Your task to perform on an android device: Look up the best rated drill on Lowes. Image 0: 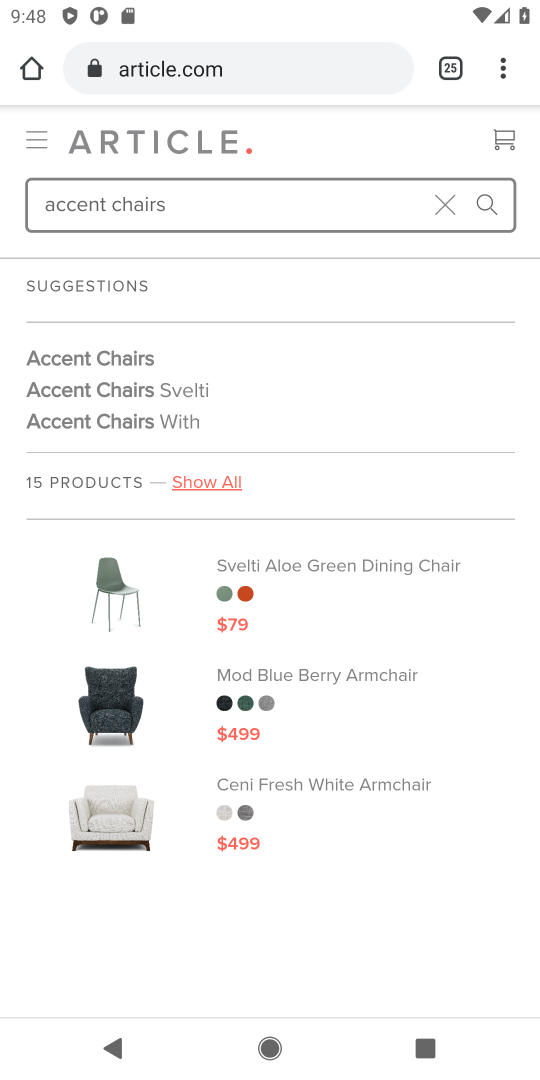
Step 0: press home button
Your task to perform on an android device: Look up the best rated drill on Lowes. Image 1: 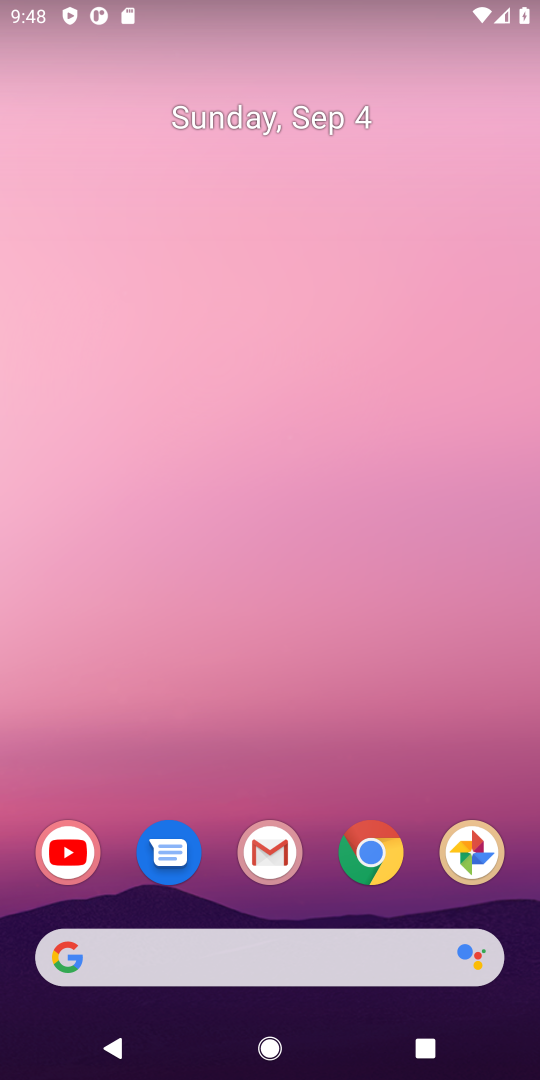
Step 1: drag from (427, 799) to (262, 106)
Your task to perform on an android device: Look up the best rated drill on Lowes. Image 2: 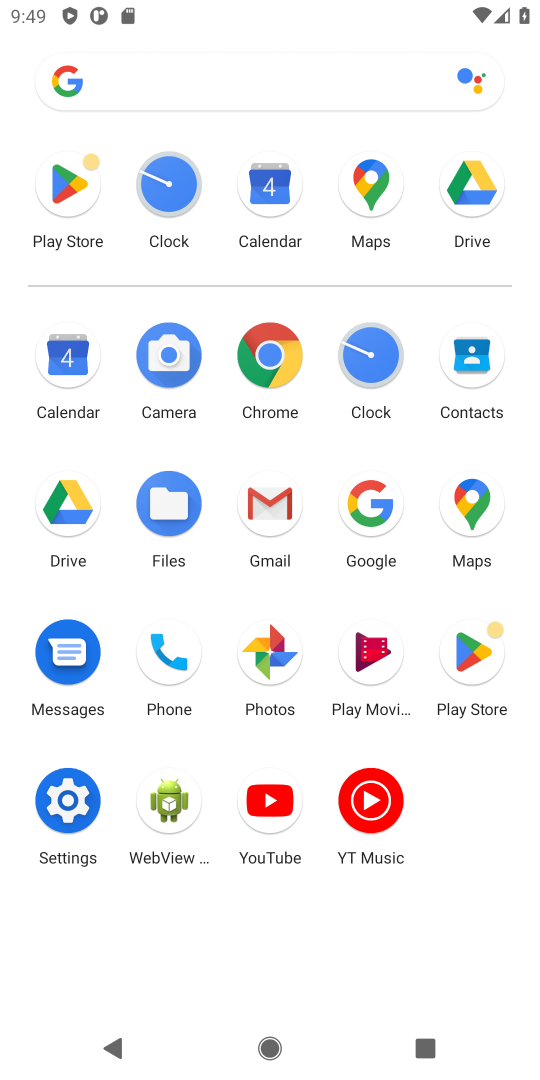
Step 2: click (375, 485)
Your task to perform on an android device: Look up the best rated drill on Lowes. Image 3: 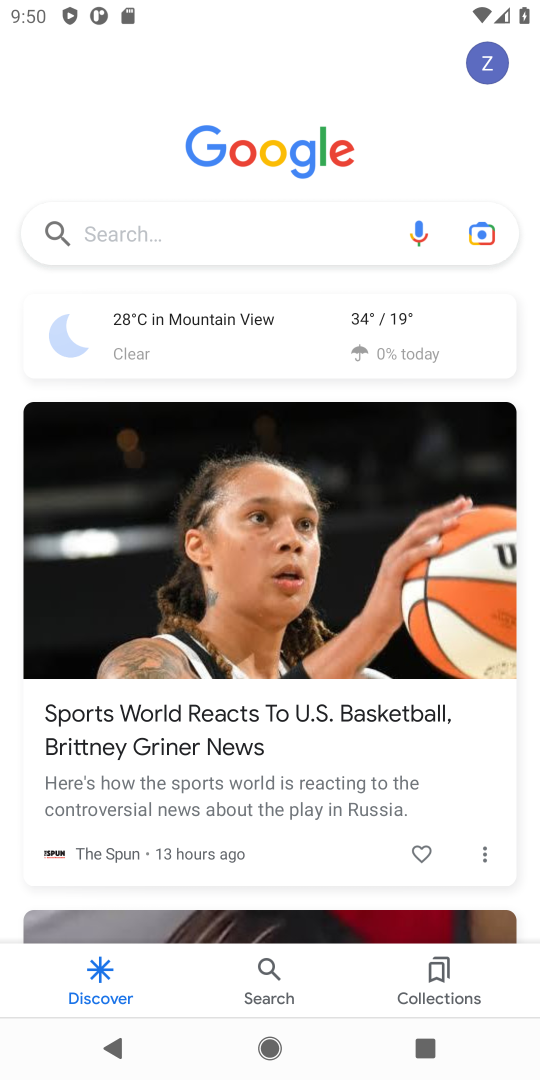
Step 3: click (137, 244)
Your task to perform on an android device: Look up the best rated drill on Lowes. Image 4: 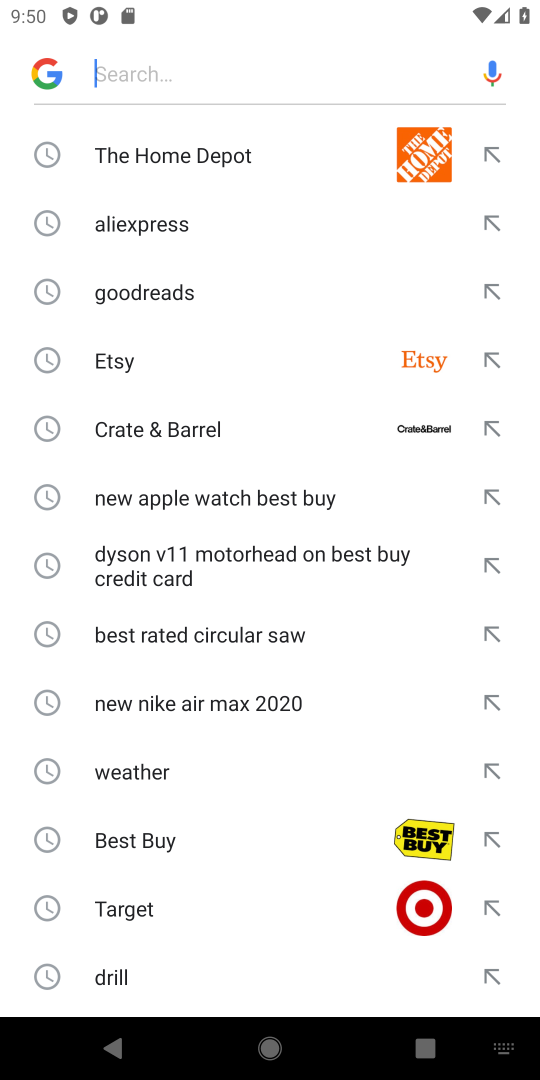
Step 4: type "best rated drill on Lowes"
Your task to perform on an android device: Look up the best rated drill on Lowes. Image 5: 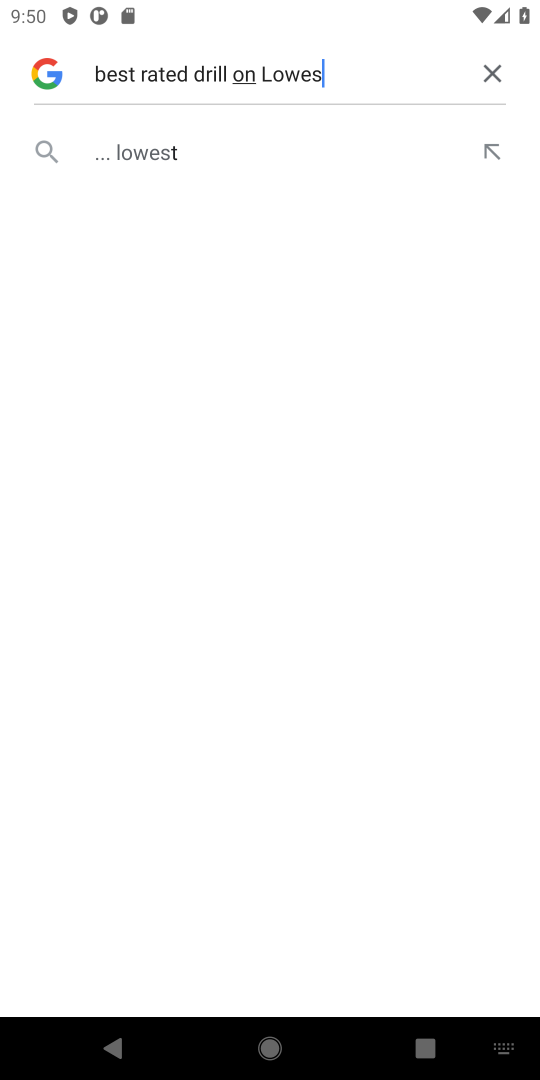
Step 5: click (128, 153)
Your task to perform on an android device: Look up the best rated drill on Lowes. Image 6: 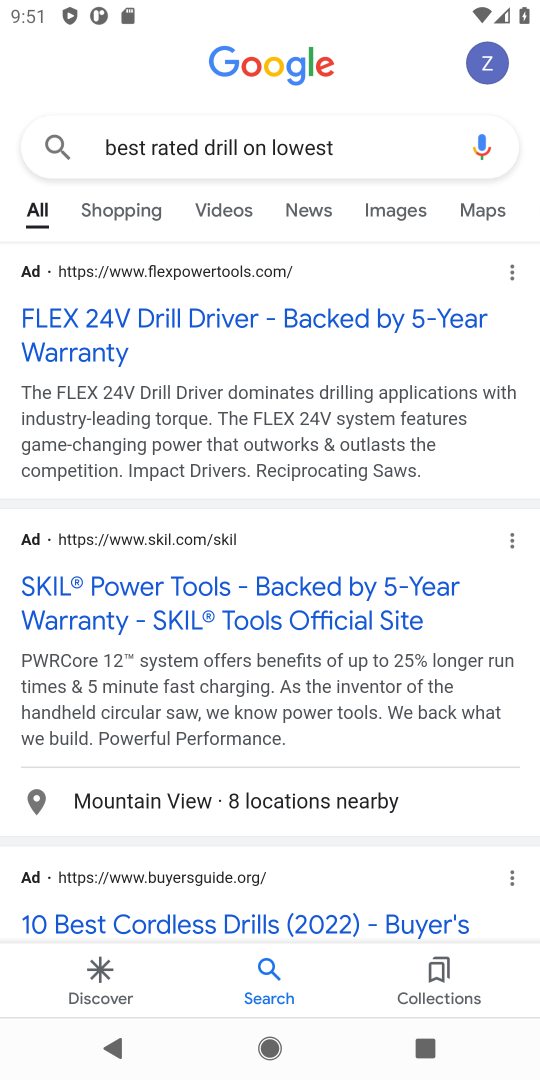
Step 6: task complete